Your task to perform on an android device: set default search engine in the chrome app Image 0: 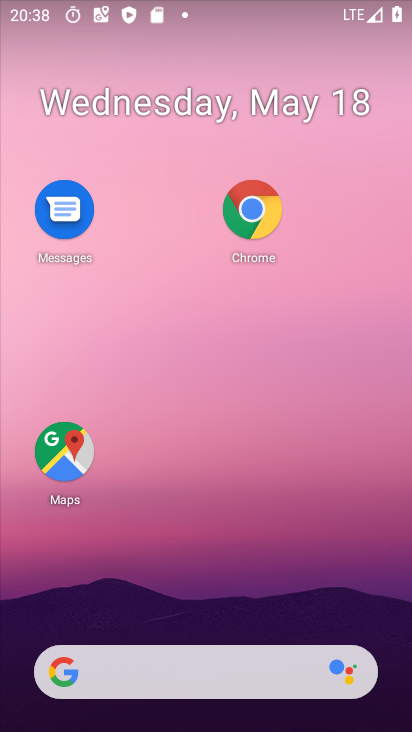
Step 0: click (260, 204)
Your task to perform on an android device: set default search engine in the chrome app Image 1: 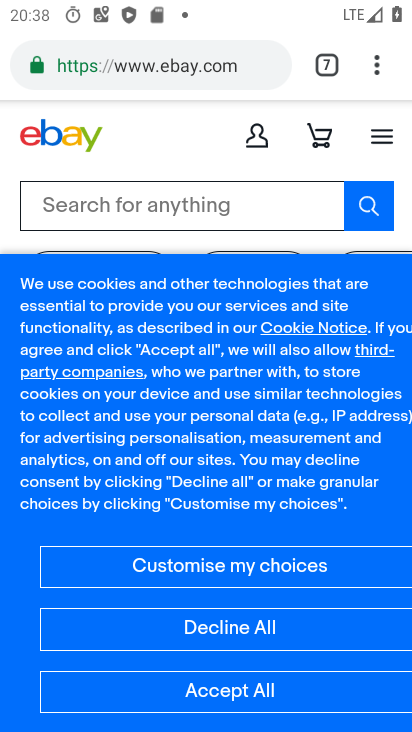
Step 1: click (386, 56)
Your task to perform on an android device: set default search engine in the chrome app Image 2: 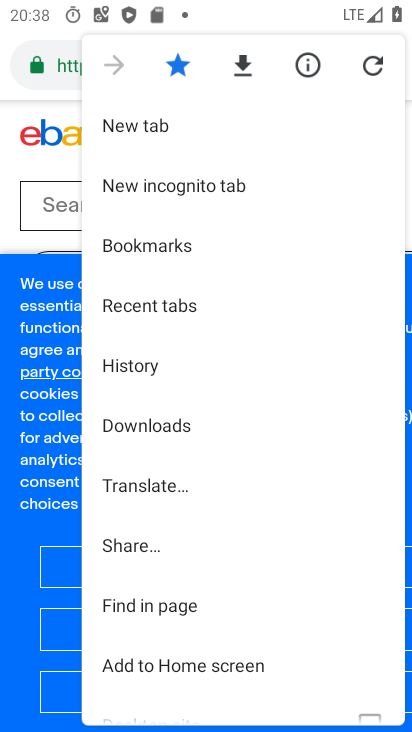
Step 2: drag from (158, 714) to (203, 326)
Your task to perform on an android device: set default search engine in the chrome app Image 3: 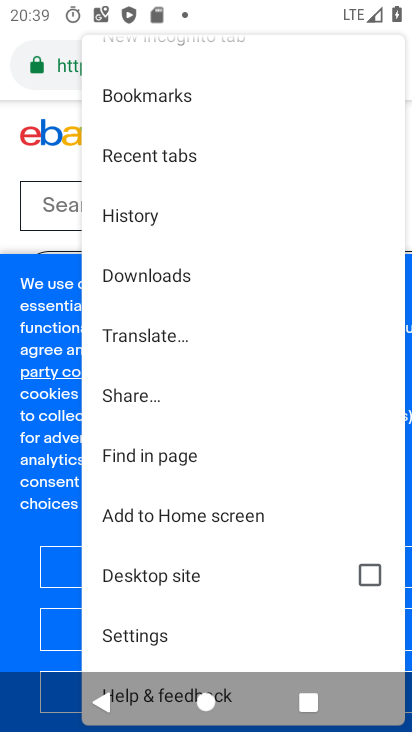
Step 3: click (144, 646)
Your task to perform on an android device: set default search engine in the chrome app Image 4: 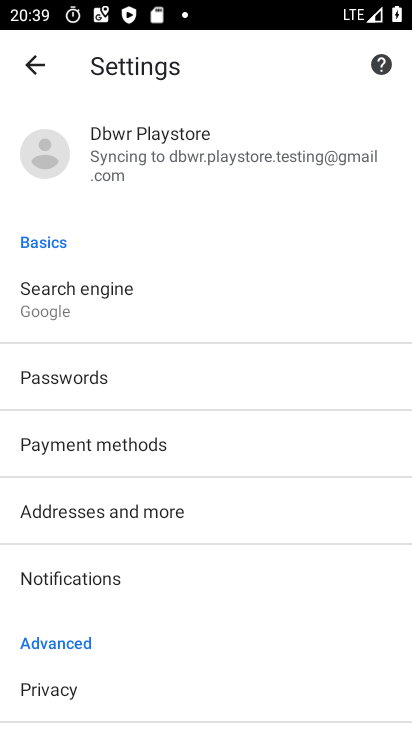
Step 4: click (102, 307)
Your task to perform on an android device: set default search engine in the chrome app Image 5: 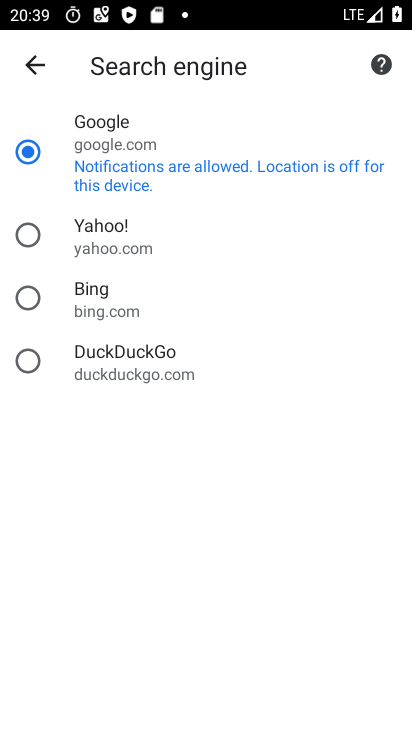
Step 5: click (117, 348)
Your task to perform on an android device: set default search engine in the chrome app Image 6: 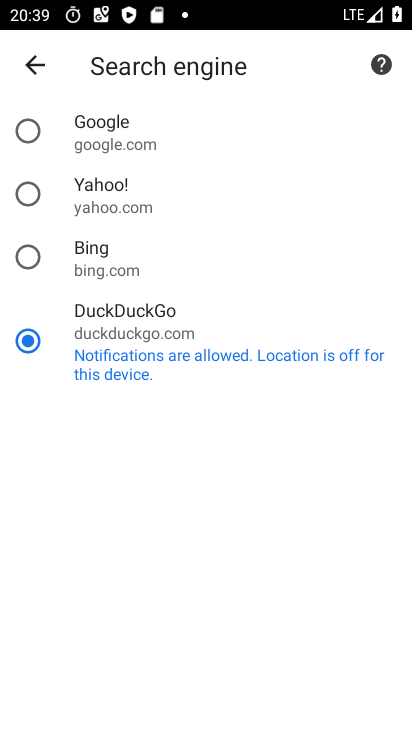
Step 6: task complete